Your task to perform on an android device: Open calendar and show me the fourth week of next month Image 0: 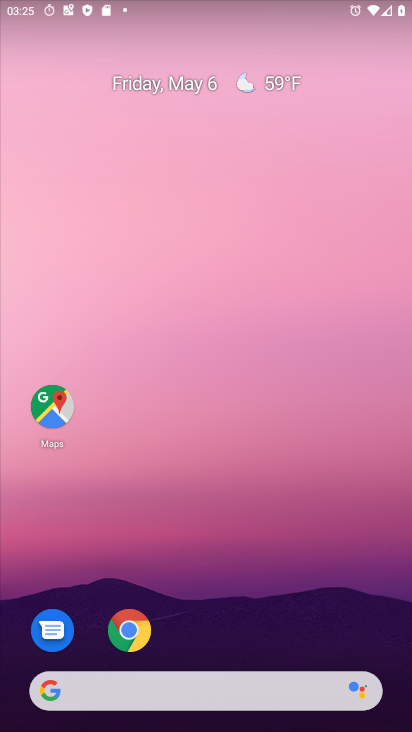
Step 0: drag from (224, 625) to (256, 184)
Your task to perform on an android device: Open calendar and show me the fourth week of next month Image 1: 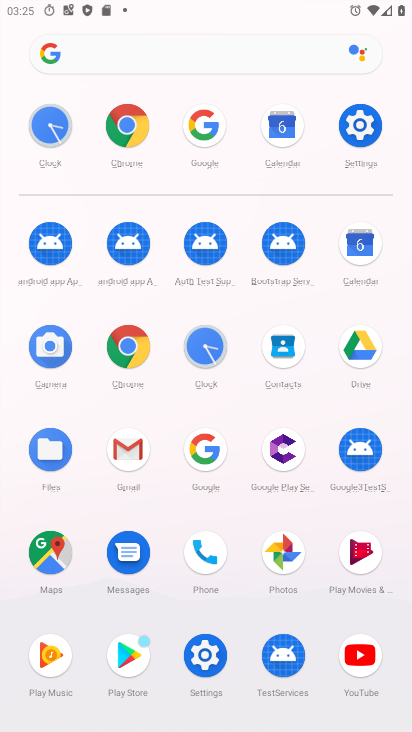
Step 1: click (351, 236)
Your task to perform on an android device: Open calendar and show me the fourth week of next month Image 2: 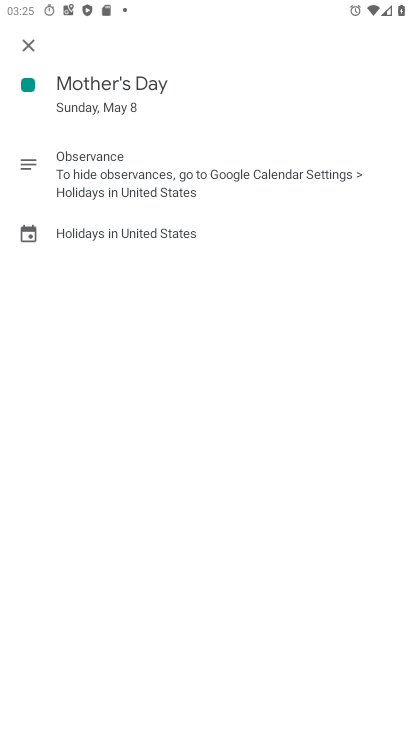
Step 2: click (30, 42)
Your task to perform on an android device: Open calendar and show me the fourth week of next month Image 3: 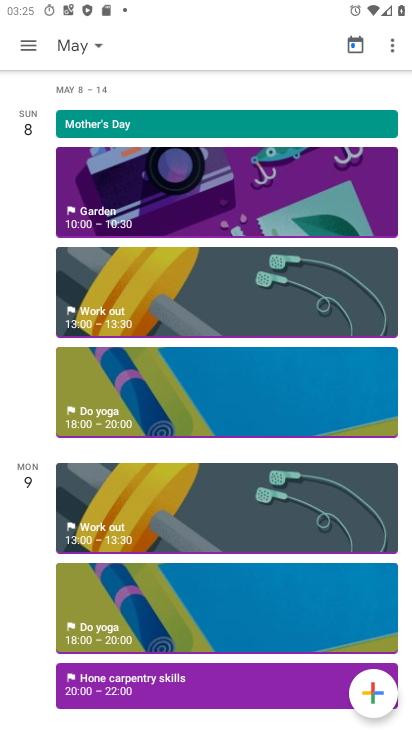
Step 3: click (73, 49)
Your task to perform on an android device: Open calendar and show me the fourth week of next month Image 4: 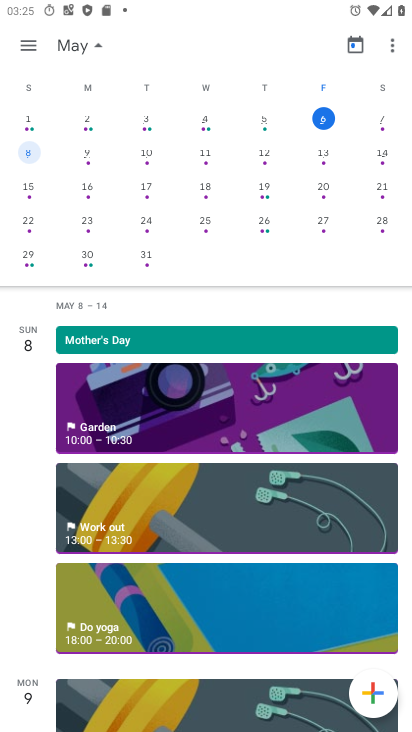
Step 4: drag from (351, 150) to (1, 147)
Your task to perform on an android device: Open calendar and show me the fourth week of next month Image 5: 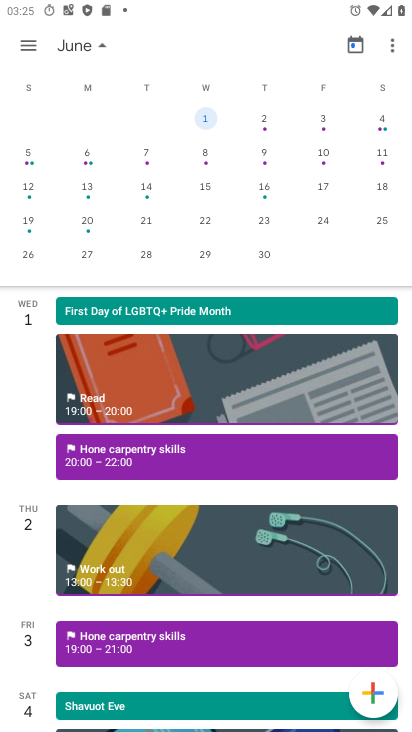
Step 5: click (33, 223)
Your task to perform on an android device: Open calendar and show me the fourth week of next month Image 6: 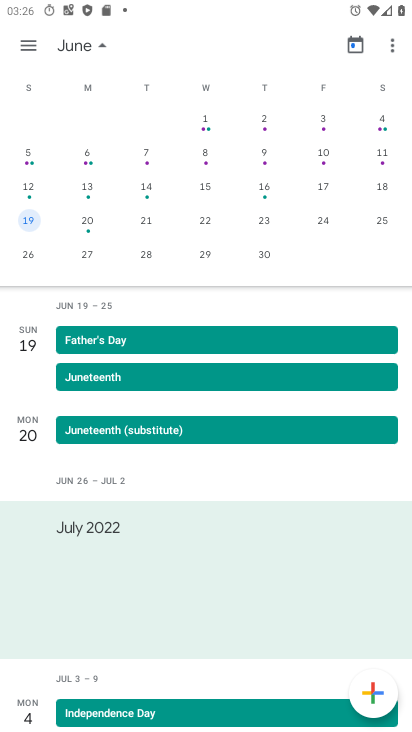
Step 6: task complete